Your task to perform on an android device: Open Google Chrome and click the shortcut for Amazon.com Image 0: 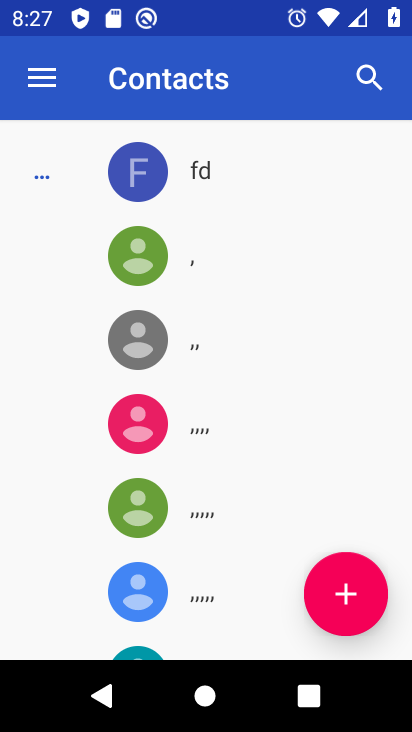
Step 0: drag from (224, 442) to (267, 115)
Your task to perform on an android device: Open Google Chrome and click the shortcut for Amazon.com Image 1: 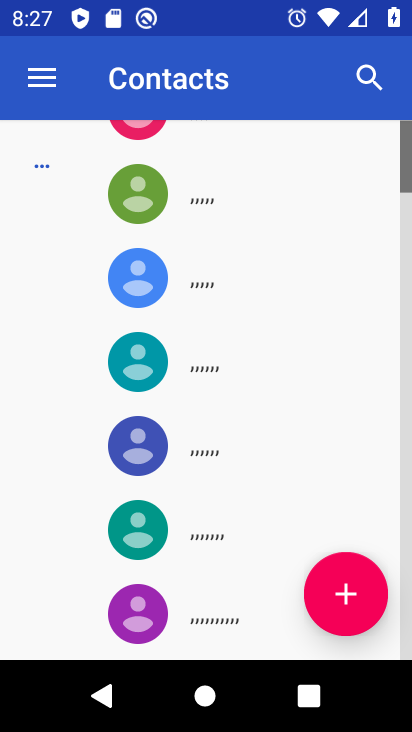
Step 1: press back button
Your task to perform on an android device: Open Google Chrome and click the shortcut for Amazon.com Image 2: 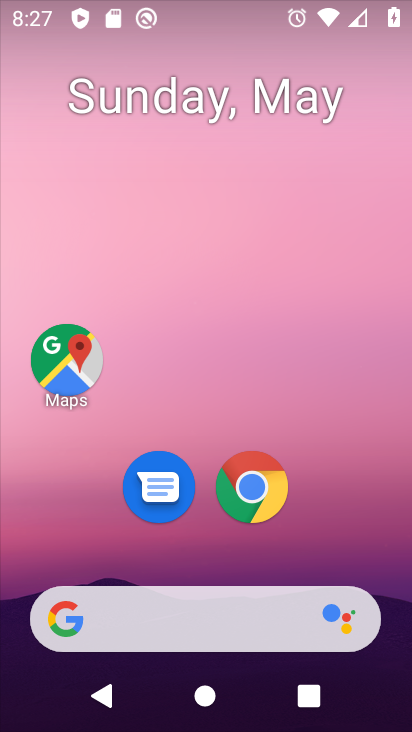
Step 2: drag from (132, 540) to (280, 19)
Your task to perform on an android device: Open Google Chrome and click the shortcut for Amazon.com Image 3: 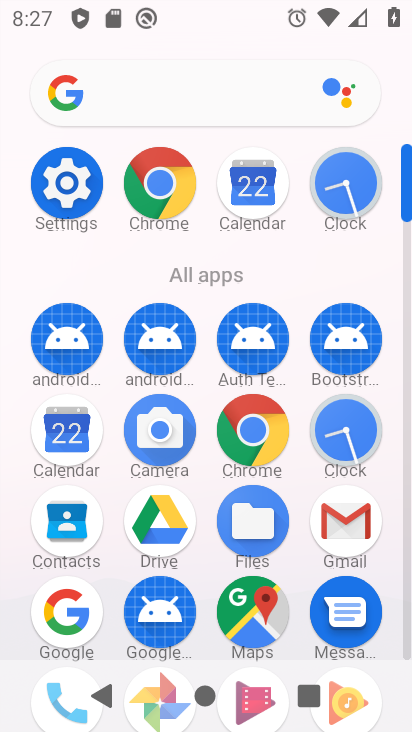
Step 3: click (74, 184)
Your task to perform on an android device: Open Google Chrome and click the shortcut for Amazon.com Image 4: 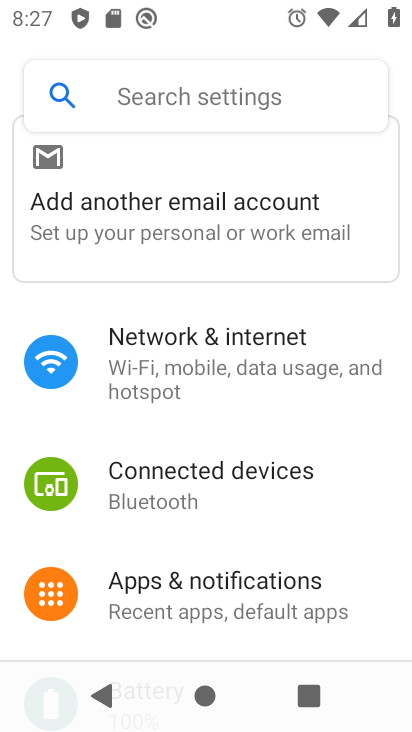
Step 4: click (118, 103)
Your task to perform on an android device: Open Google Chrome and click the shortcut for Amazon.com Image 5: 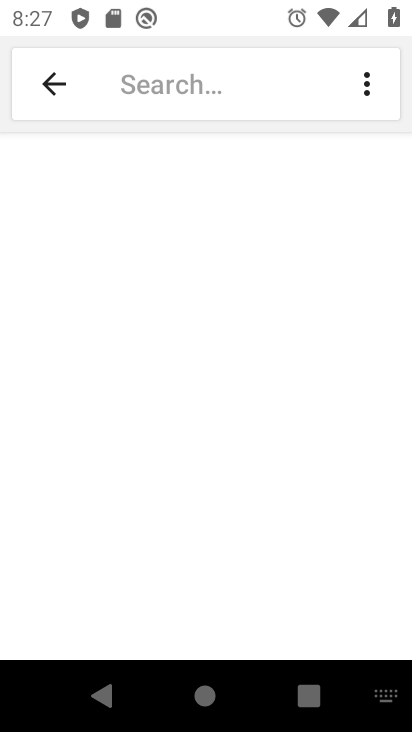
Step 5: type "sleep mode"
Your task to perform on an android device: Open Google Chrome and click the shortcut for Amazon.com Image 6: 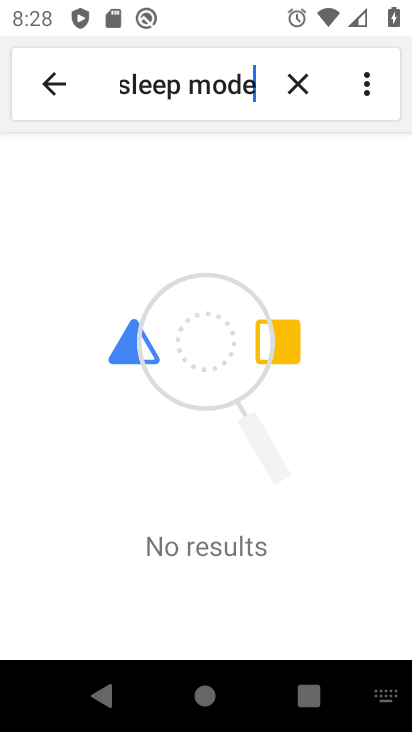
Step 6: press back button
Your task to perform on an android device: Open Google Chrome and click the shortcut for Amazon.com Image 7: 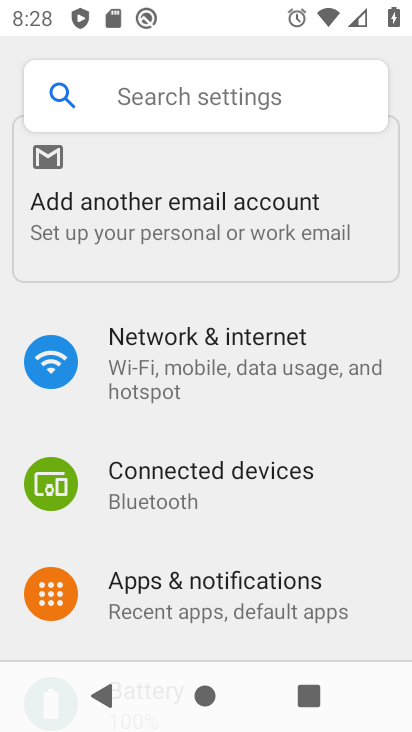
Step 7: press home button
Your task to perform on an android device: Open Google Chrome and click the shortcut for Amazon.com Image 8: 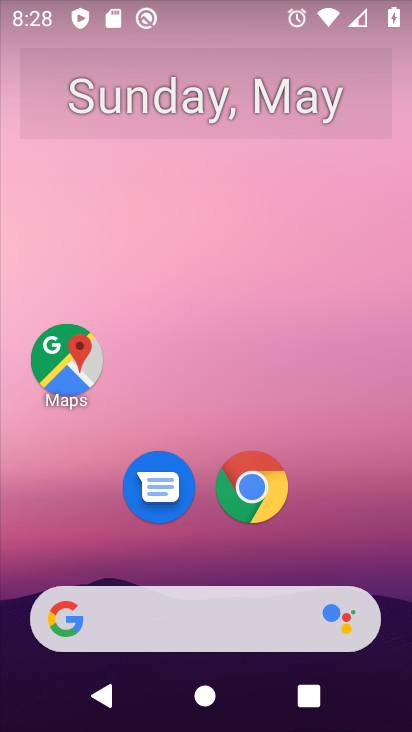
Step 8: click (264, 473)
Your task to perform on an android device: Open Google Chrome and click the shortcut for Amazon.com Image 9: 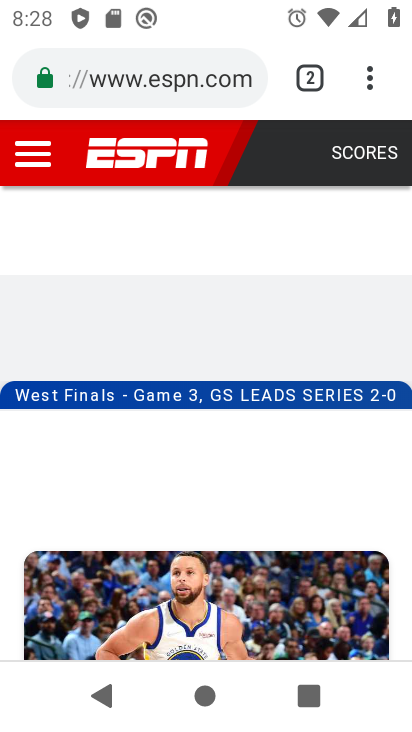
Step 9: click (307, 74)
Your task to perform on an android device: Open Google Chrome and click the shortcut for Amazon.com Image 10: 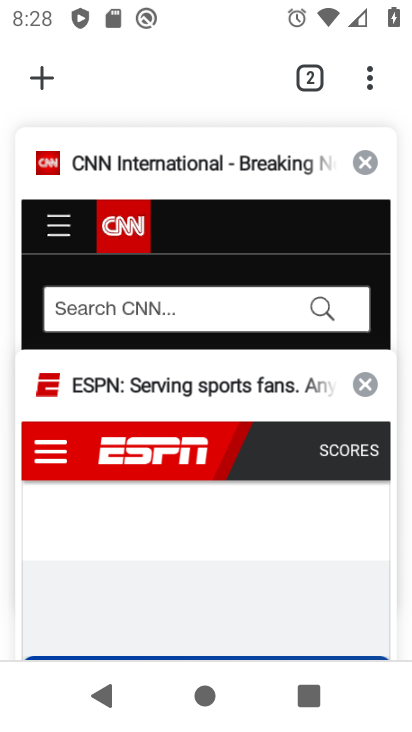
Step 10: click (38, 67)
Your task to perform on an android device: Open Google Chrome and click the shortcut for Amazon.com Image 11: 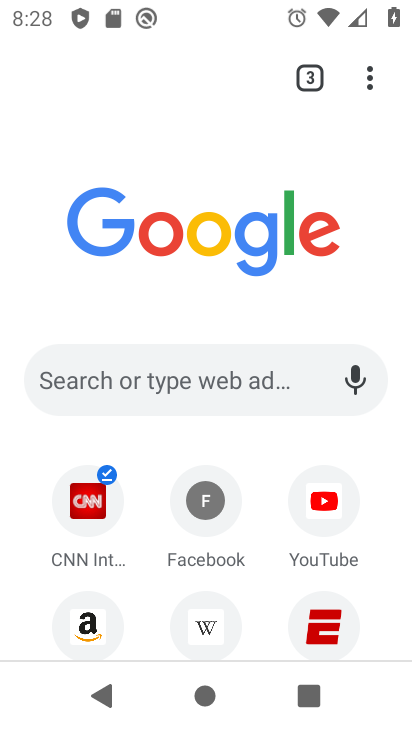
Step 11: click (92, 628)
Your task to perform on an android device: Open Google Chrome and click the shortcut for Amazon.com Image 12: 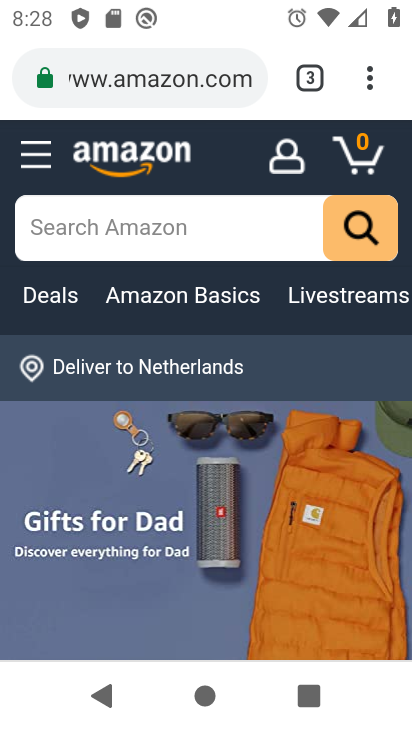
Step 12: task complete